Your task to perform on an android device: toggle pop-ups in chrome Image 0: 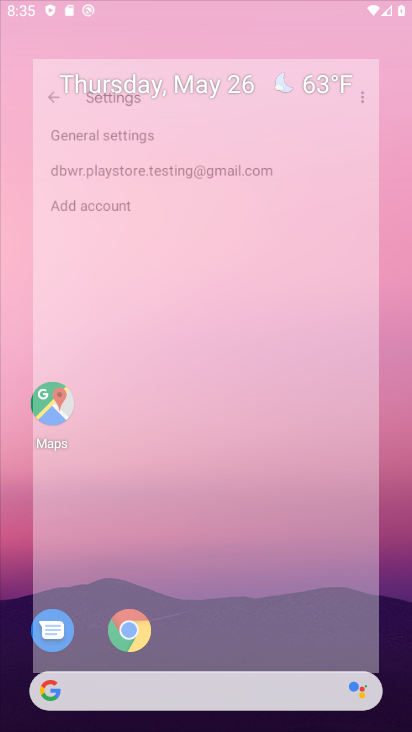
Step 0: drag from (9, 247) to (324, 411)
Your task to perform on an android device: toggle pop-ups in chrome Image 1: 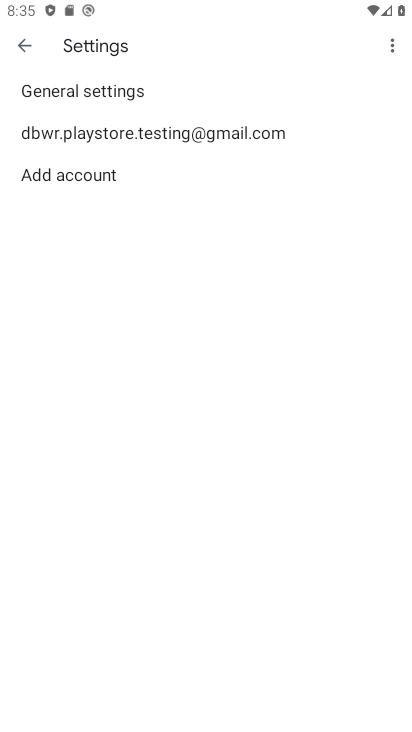
Step 1: press back button
Your task to perform on an android device: toggle pop-ups in chrome Image 2: 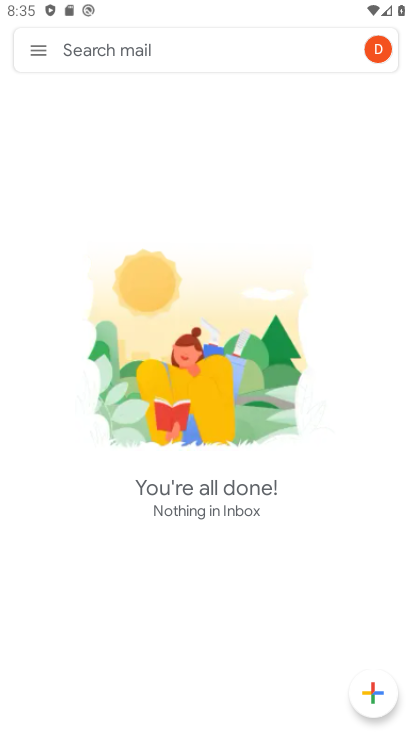
Step 2: press home button
Your task to perform on an android device: toggle pop-ups in chrome Image 3: 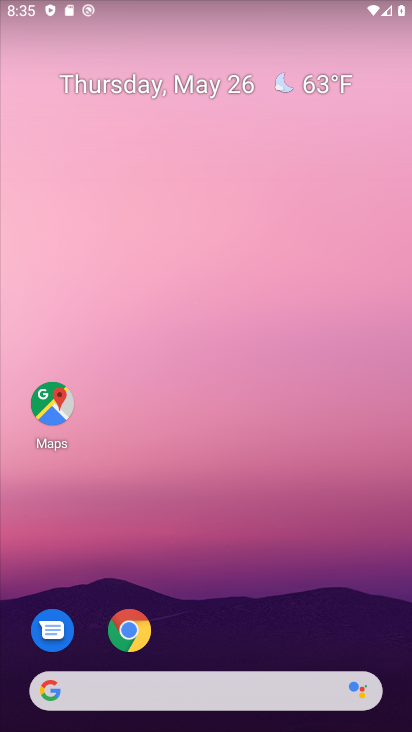
Step 3: drag from (258, 689) to (196, 136)
Your task to perform on an android device: toggle pop-ups in chrome Image 4: 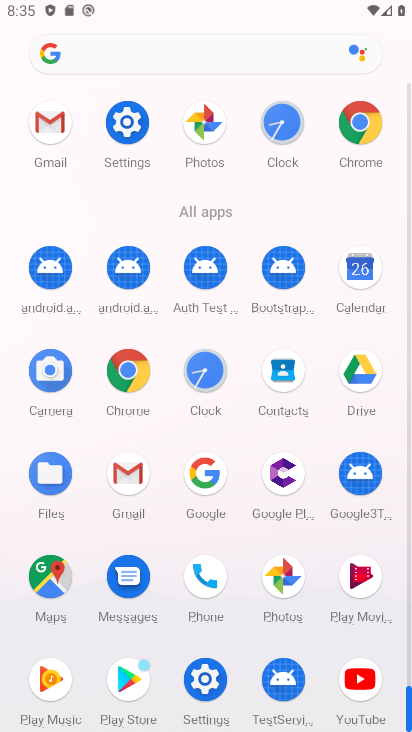
Step 4: click (362, 121)
Your task to perform on an android device: toggle pop-ups in chrome Image 5: 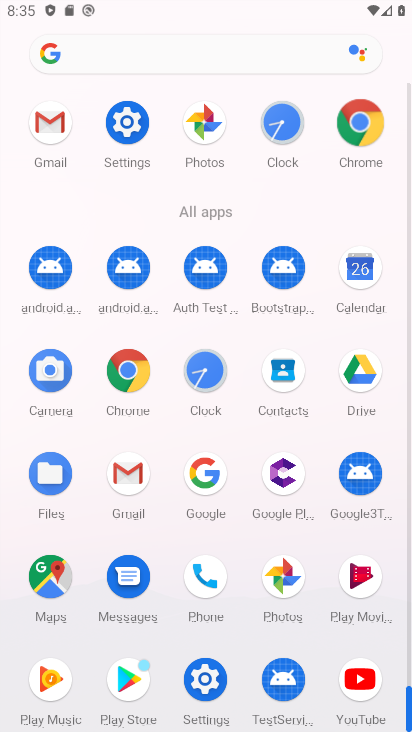
Step 5: click (362, 121)
Your task to perform on an android device: toggle pop-ups in chrome Image 6: 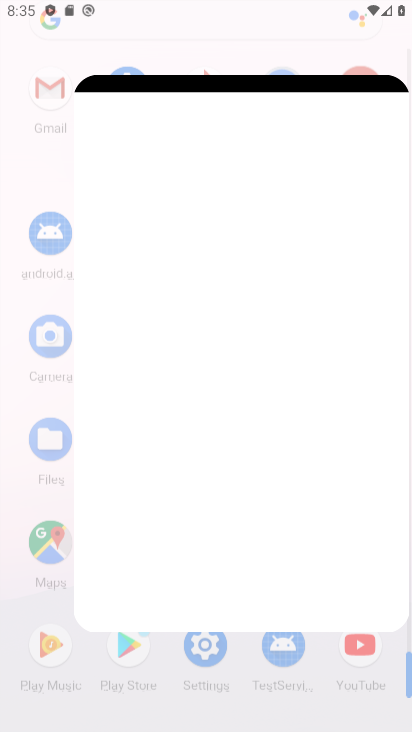
Step 6: click (364, 119)
Your task to perform on an android device: toggle pop-ups in chrome Image 7: 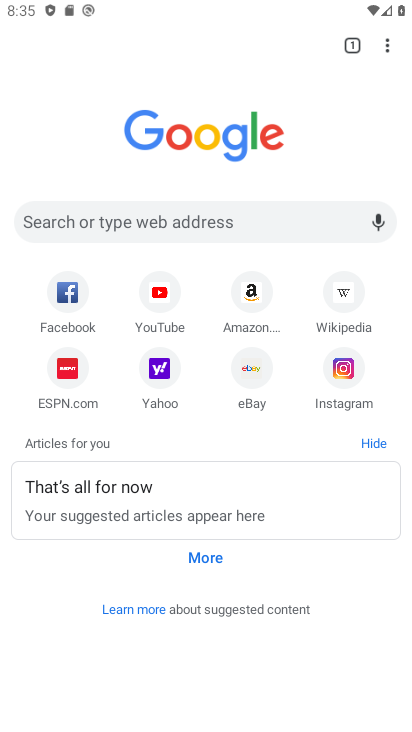
Step 7: drag from (379, 45) to (214, 380)
Your task to perform on an android device: toggle pop-ups in chrome Image 8: 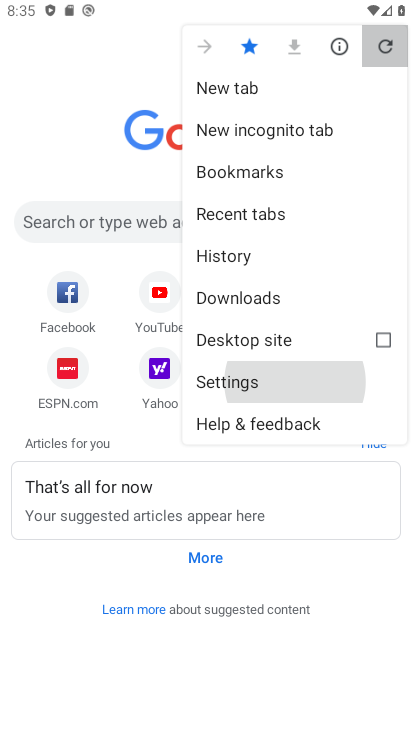
Step 8: click (215, 379)
Your task to perform on an android device: toggle pop-ups in chrome Image 9: 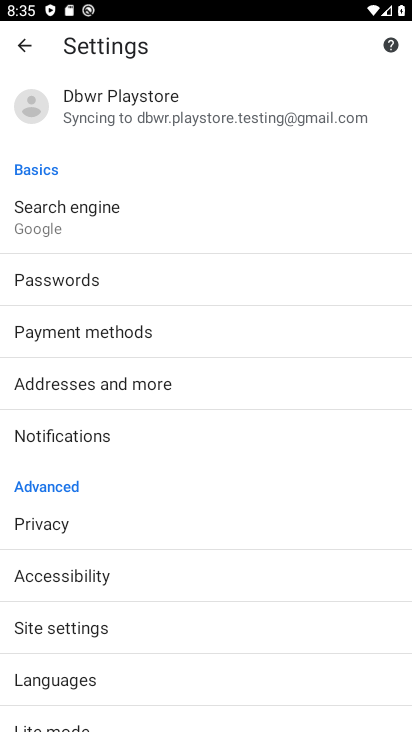
Step 9: drag from (145, 521) to (151, 30)
Your task to perform on an android device: toggle pop-ups in chrome Image 10: 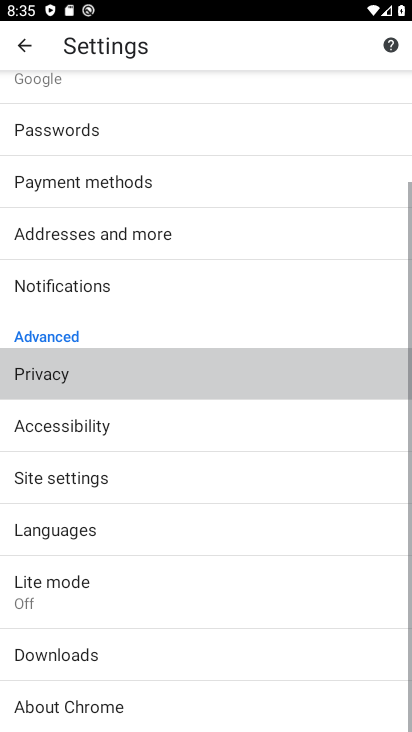
Step 10: drag from (201, 461) to (242, 134)
Your task to perform on an android device: toggle pop-ups in chrome Image 11: 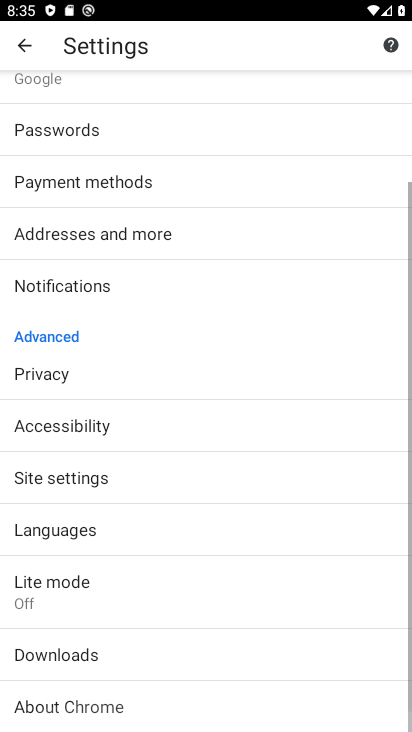
Step 11: drag from (249, 456) to (281, 87)
Your task to perform on an android device: toggle pop-ups in chrome Image 12: 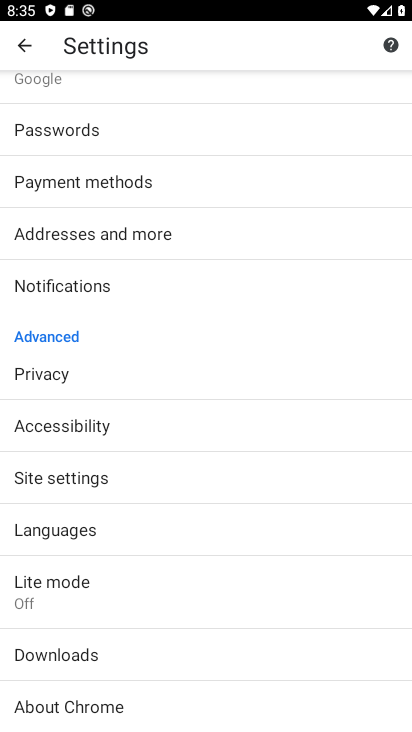
Step 12: click (48, 467)
Your task to perform on an android device: toggle pop-ups in chrome Image 13: 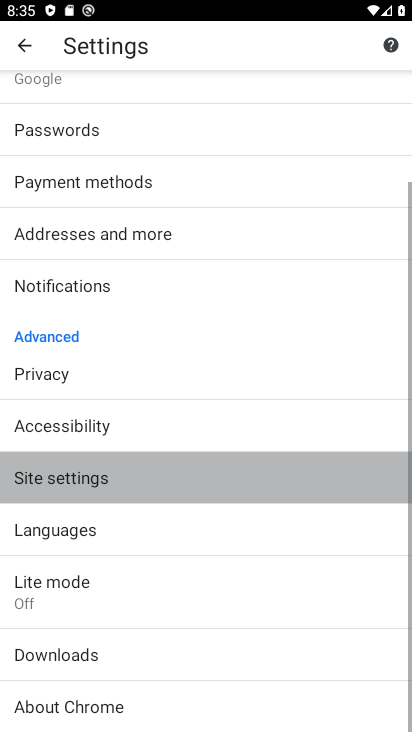
Step 13: click (50, 477)
Your task to perform on an android device: toggle pop-ups in chrome Image 14: 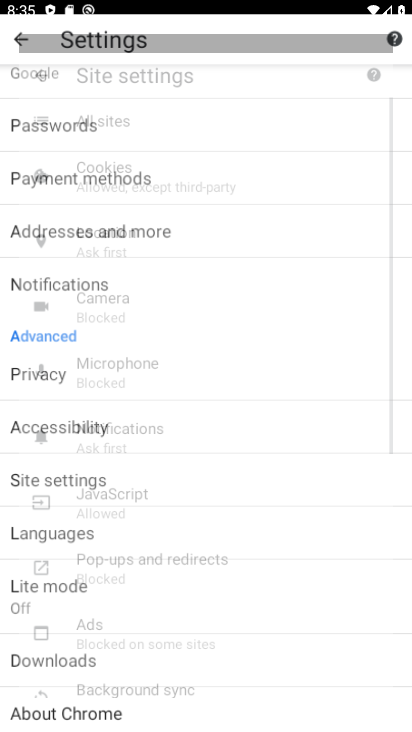
Step 14: click (50, 477)
Your task to perform on an android device: toggle pop-ups in chrome Image 15: 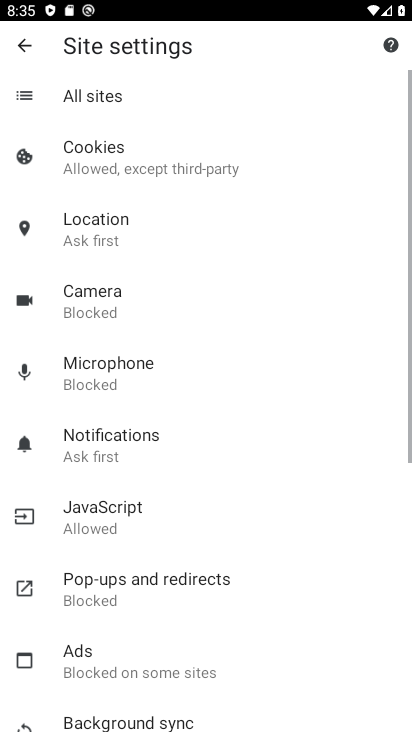
Step 15: click (51, 478)
Your task to perform on an android device: toggle pop-ups in chrome Image 16: 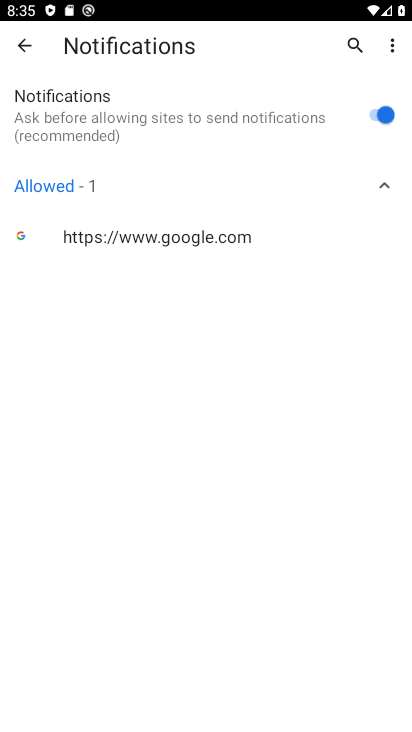
Step 16: click (29, 51)
Your task to perform on an android device: toggle pop-ups in chrome Image 17: 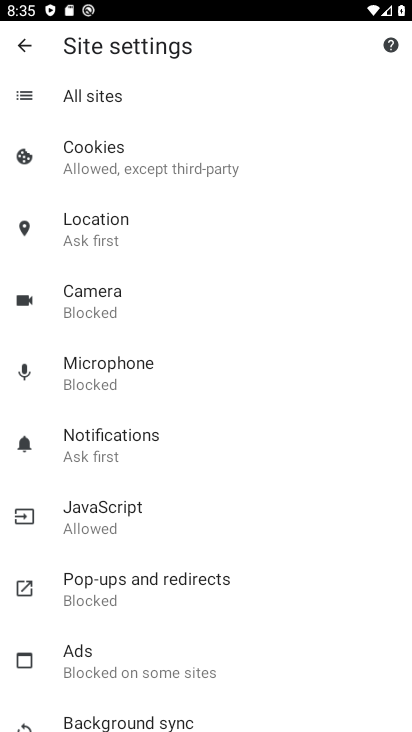
Step 17: click (84, 585)
Your task to perform on an android device: toggle pop-ups in chrome Image 18: 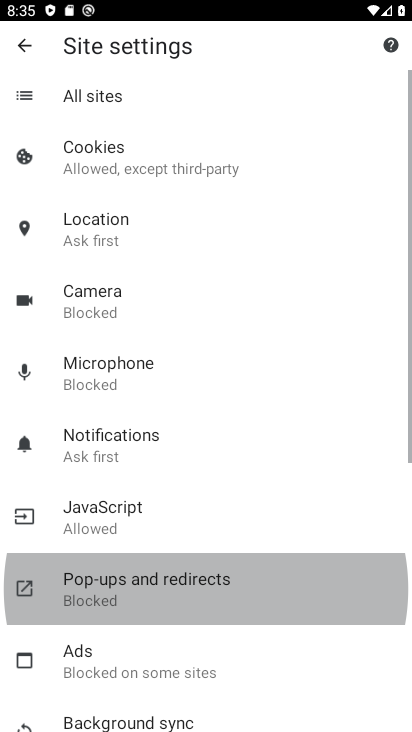
Step 18: click (86, 584)
Your task to perform on an android device: toggle pop-ups in chrome Image 19: 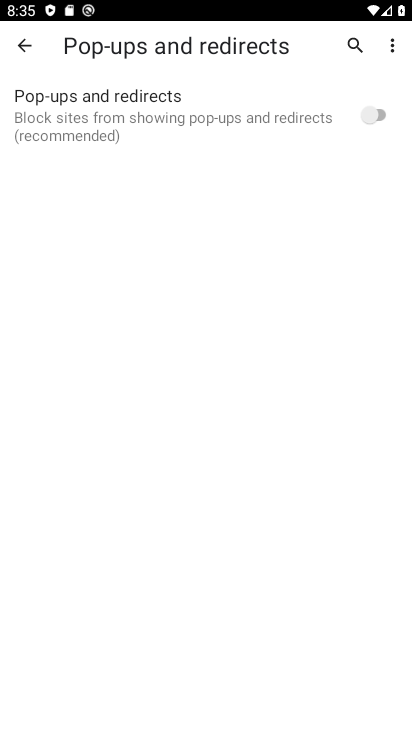
Step 19: click (366, 109)
Your task to perform on an android device: toggle pop-ups in chrome Image 20: 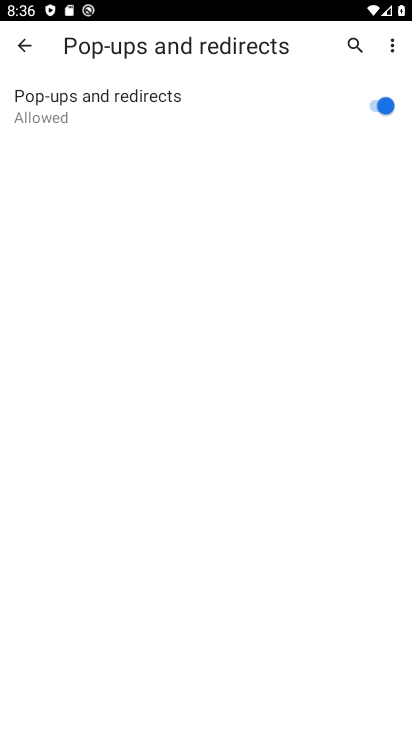
Step 20: task complete